Your task to perform on an android device: Turn off the flashlight Image 0: 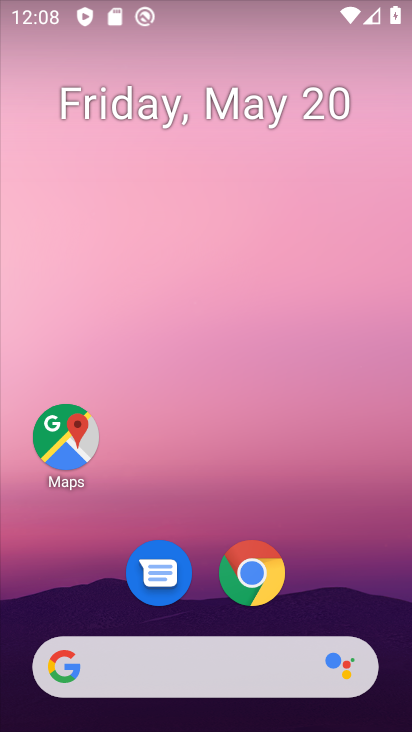
Step 0: drag from (317, 605) to (351, 37)
Your task to perform on an android device: Turn off the flashlight Image 1: 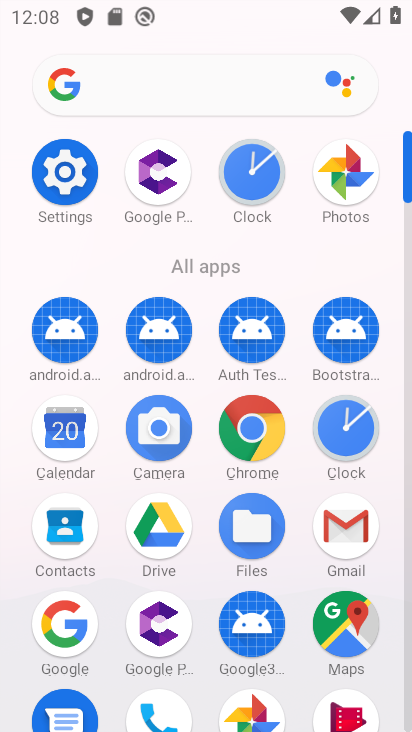
Step 1: click (62, 174)
Your task to perform on an android device: Turn off the flashlight Image 2: 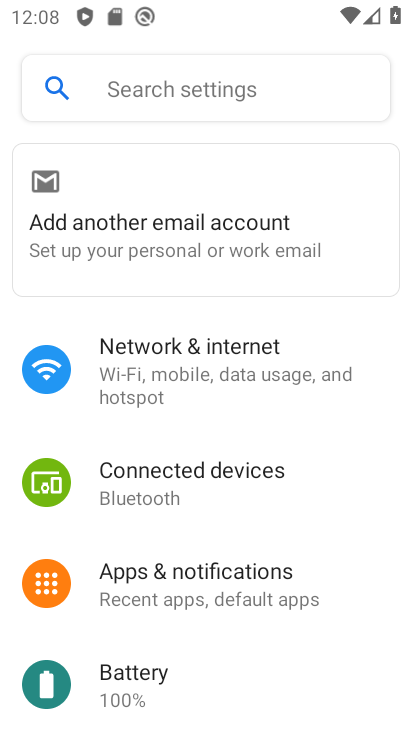
Step 2: task complete